Your task to perform on an android device: find snoozed emails in the gmail app Image 0: 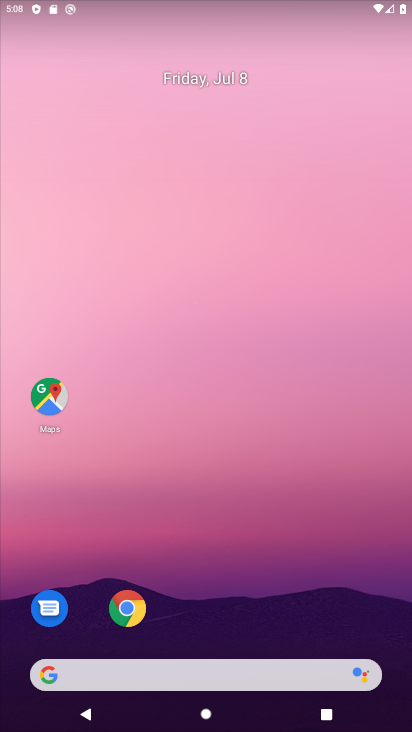
Step 0: drag from (287, 646) to (361, 1)
Your task to perform on an android device: find snoozed emails in the gmail app Image 1: 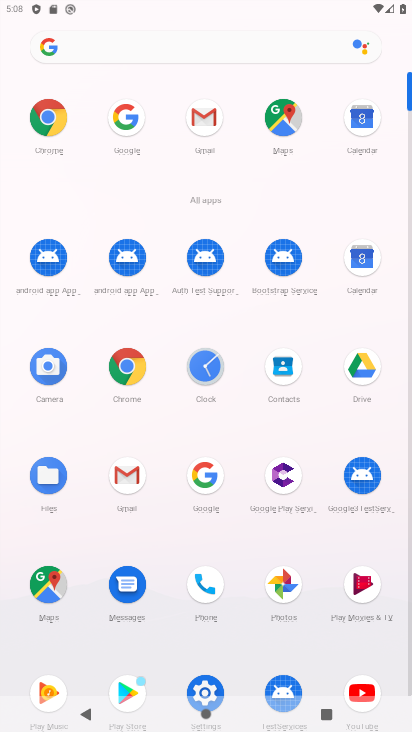
Step 1: click (117, 466)
Your task to perform on an android device: find snoozed emails in the gmail app Image 2: 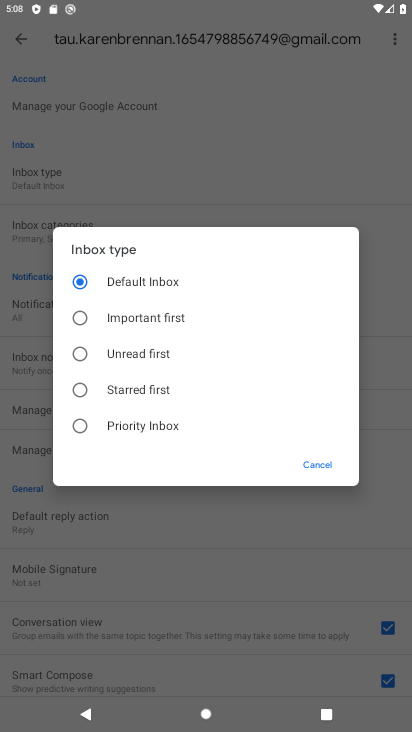
Step 2: press back button
Your task to perform on an android device: find snoozed emails in the gmail app Image 3: 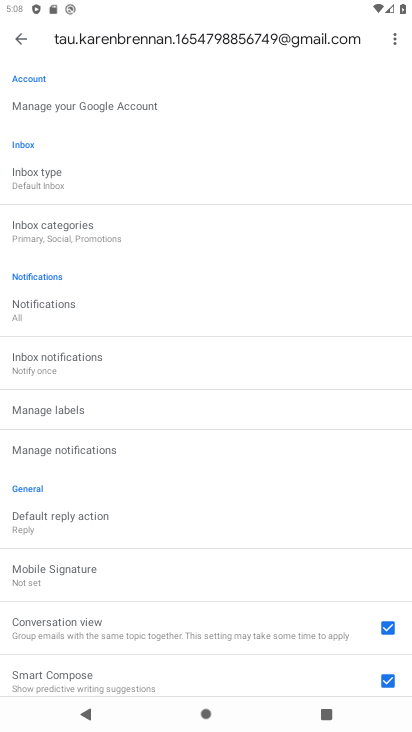
Step 3: press back button
Your task to perform on an android device: find snoozed emails in the gmail app Image 4: 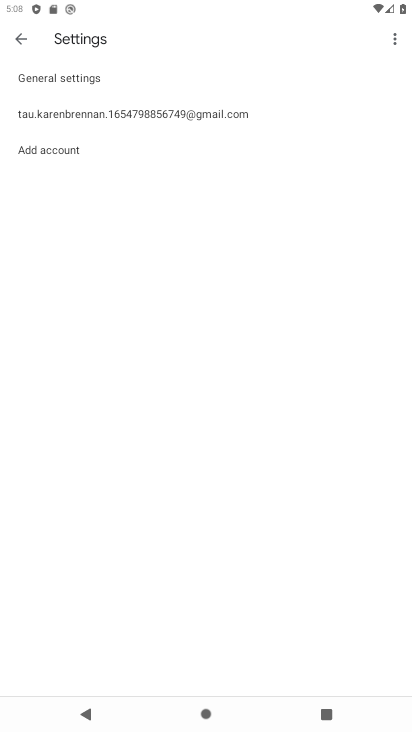
Step 4: press back button
Your task to perform on an android device: find snoozed emails in the gmail app Image 5: 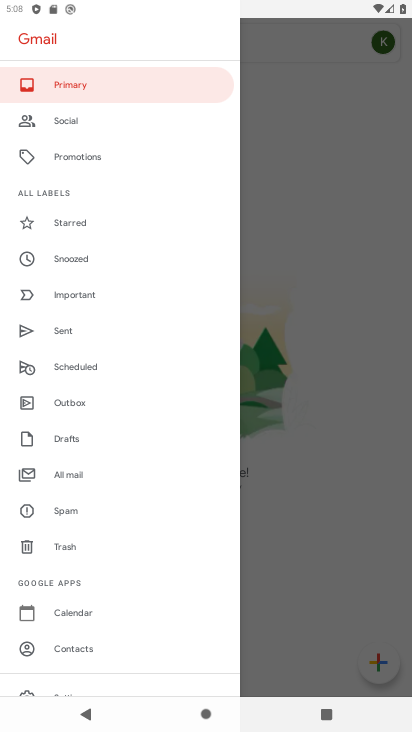
Step 5: click (75, 261)
Your task to perform on an android device: find snoozed emails in the gmail app Image 6: 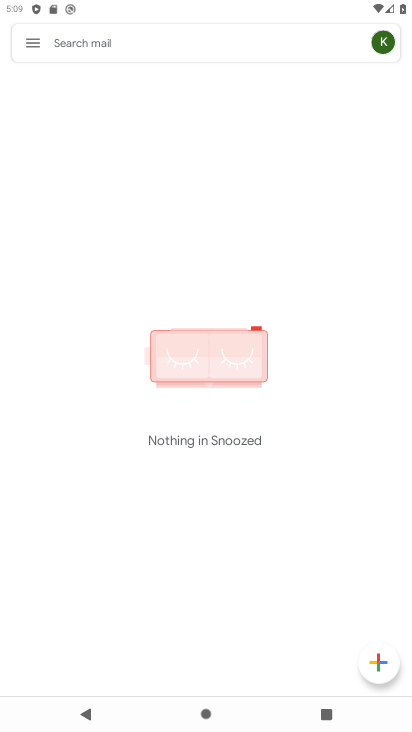
Step 6: task complete